Your task to perform on an android device: Find coffee shops on Maps Image 0: 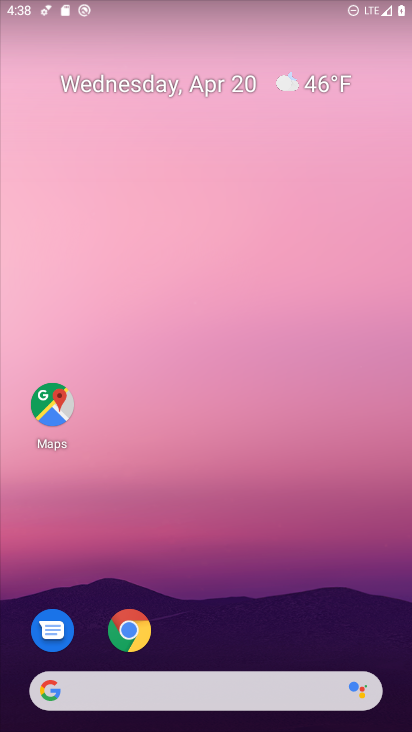
Step 0: drag from (262, 552) to (303, 97)
Your task to perform on an android device: Find coffee shops on Maps Image 1: 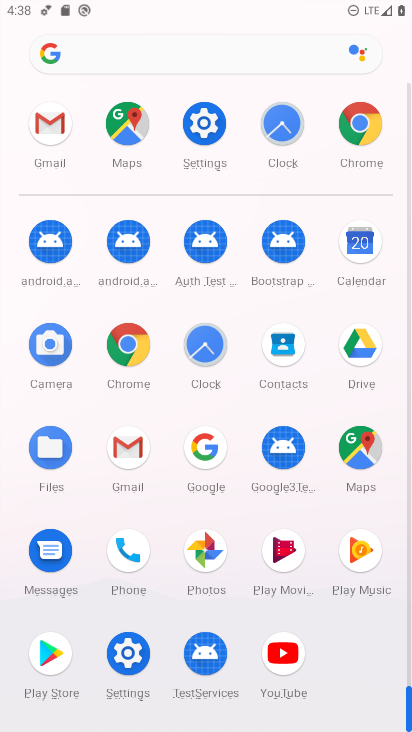
Step 1: click (369, 452)
Your task to perform on an android device: Find coffee shops on Maps Image 2: 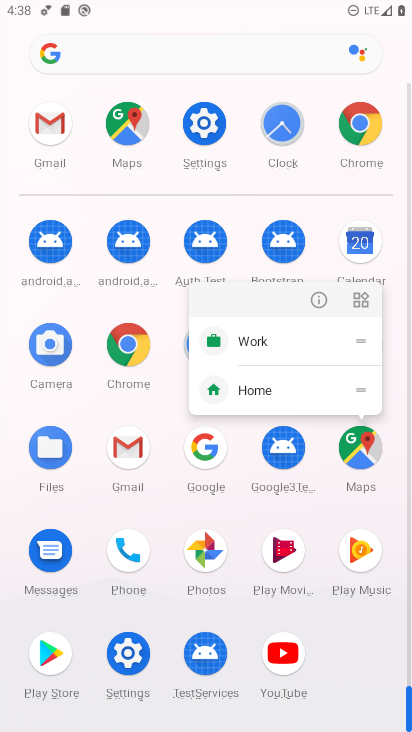
Step 2: click (361, 467)
Your task to perform on an android device: Find coffee shops on Maps Image 3: 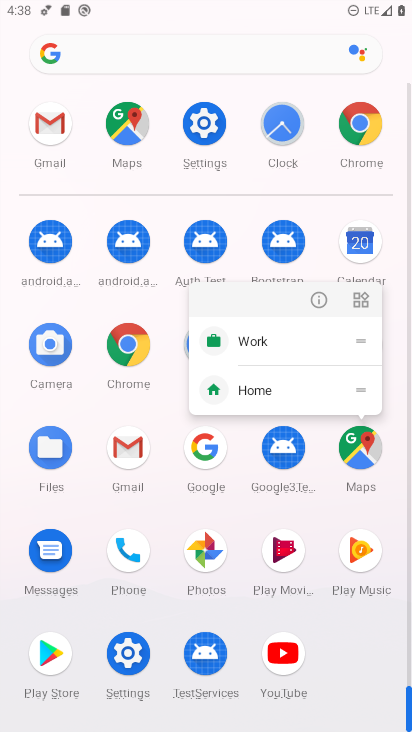
Step 3: click (361, 467)
Your task to perform on an android device: Find coffee shops on Maps Image 4: 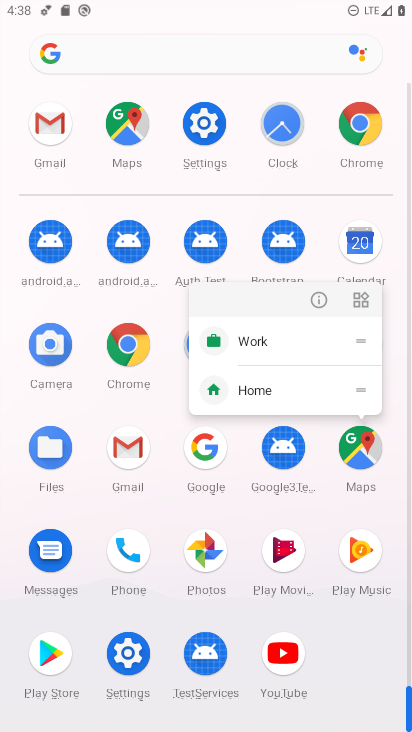
Step 4: click (361, 467)
Your task to perform on an android device: Find coffee shops on Maps Image 5: 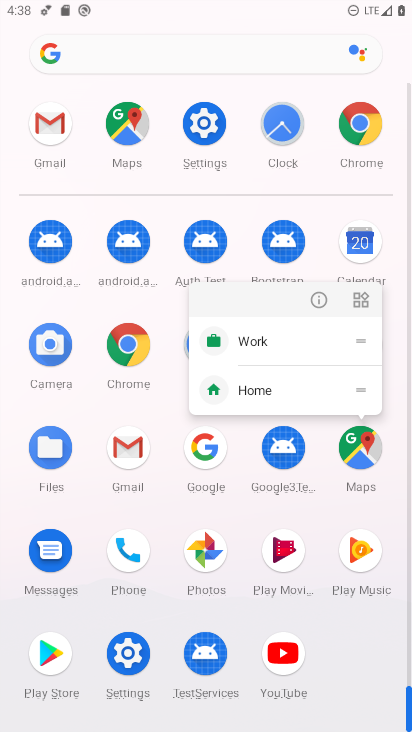
Step 5: click (361, 467)
Your task to perform on an android device: Find coffee shops on Maps Image 6: 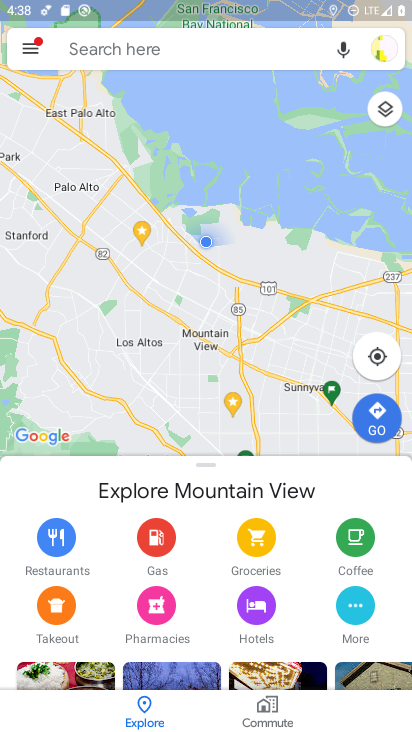
Step 6: click (242, 39)
Your task to perform on an android device: Find coffee shops on Maps Image 7: 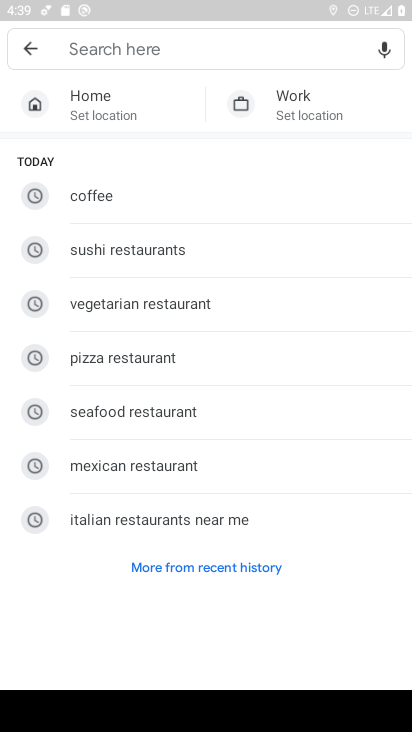
Step 7: type "coffee shops"
Your task to perform on an android device: Find coffee shops on Maps Image 8: 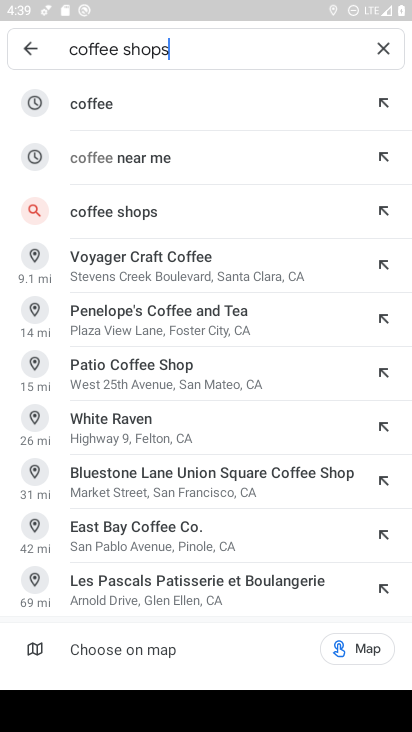
Step 8: click (157, 215)
Your task to perform on an android device: Find coffee shops on Maps Image 9: 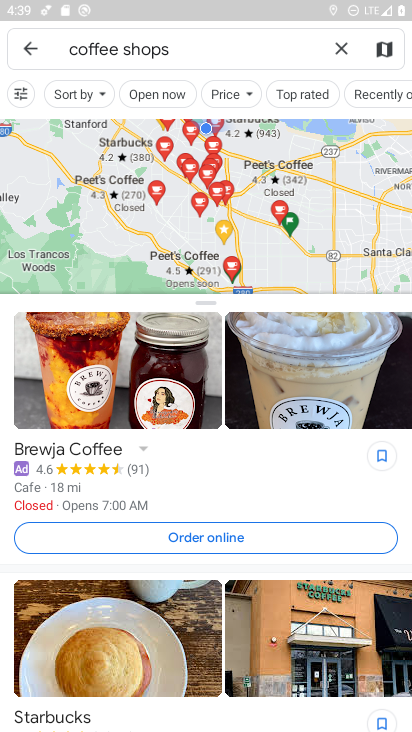
Step 9: task complete